Your task to perform on an android device: turn on bluetooth scan Image 0: 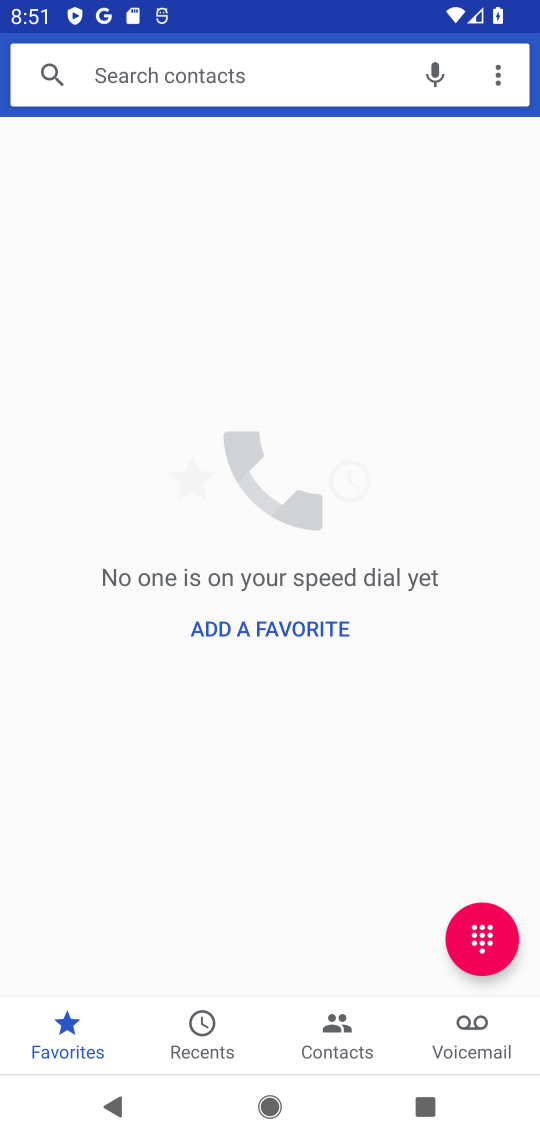
Step 0: press home button
Your task to perform on an android device: turn on bluetooth scan Image 1: 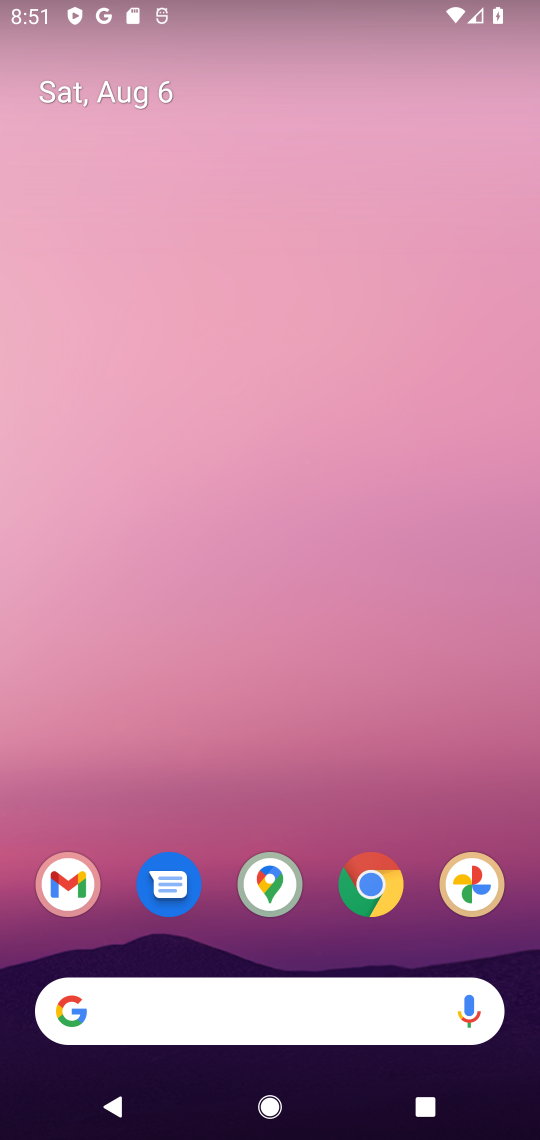
Step 1: drag from (411, 931) to (359, 135)
Your task to perform on an android device: turn on bluetooth scan Image 2: 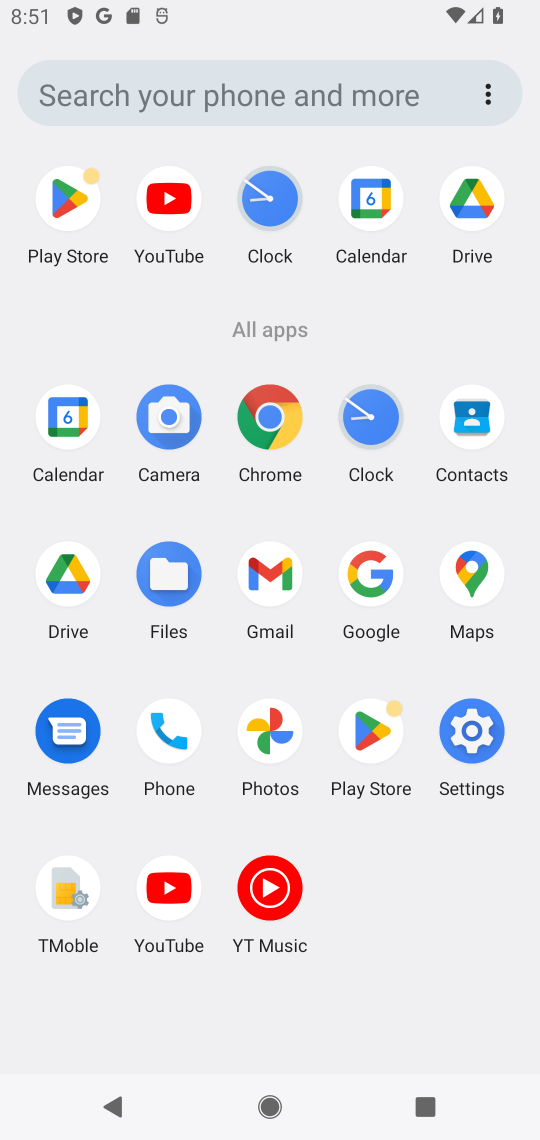
Step 2: click (473, 732)
Your task to perform on an android device: turn on bluetooth scan Image 3: 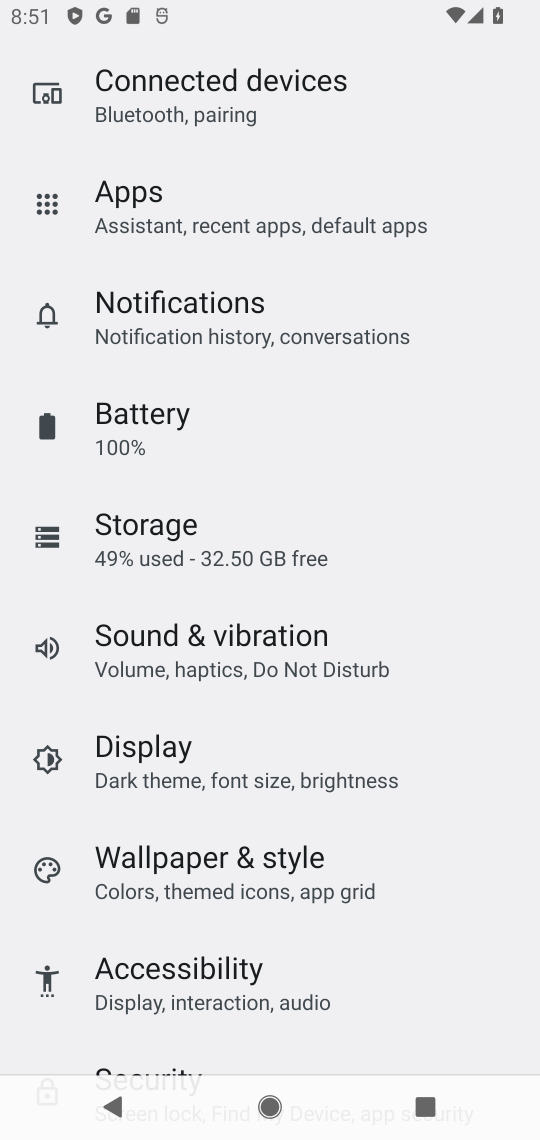
Step 3: drag from (385, 998) to (348, 602)
Your task to perform on an android device: turn on bluetooth scan Image 4: 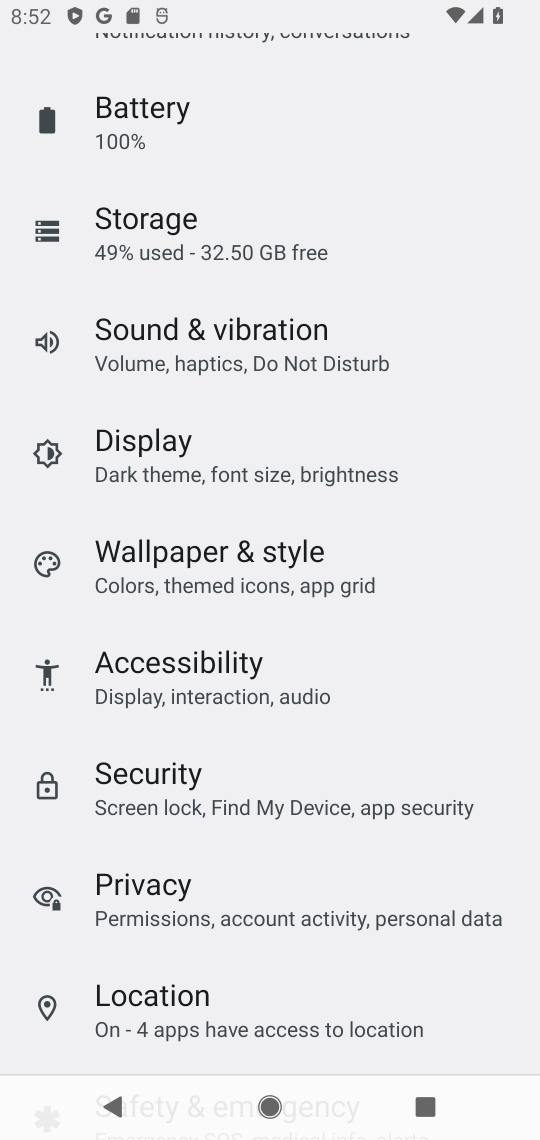
Step 4: click (171, 1001)
Your task to perform on an android device: turn on bluetooth scan Image 5: 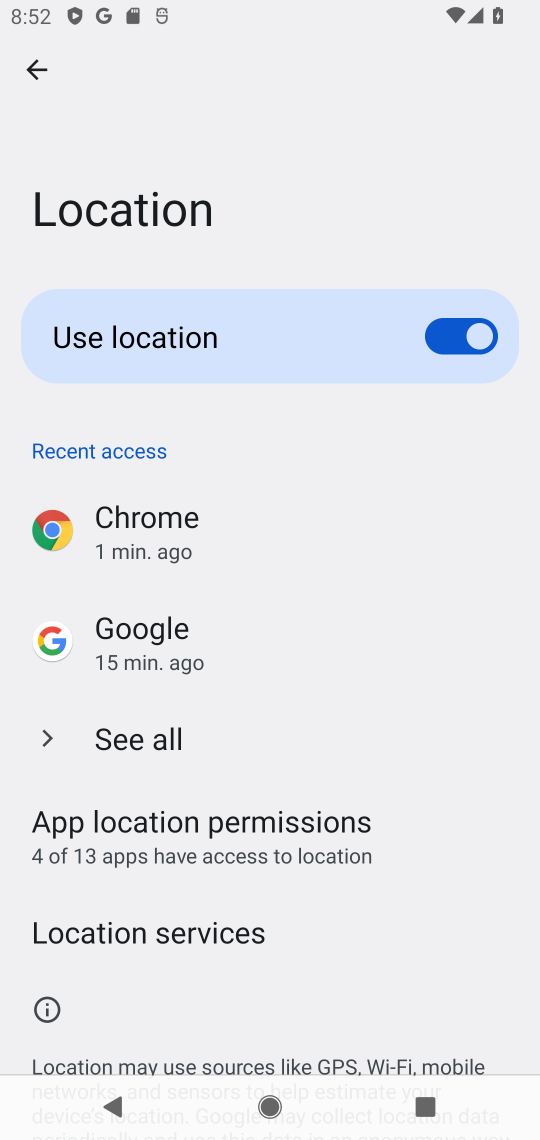
Step 5: drag from (429, 978) to (417, 627)
Your task to perform on an android device: turn on bluetooth scan Image 6: 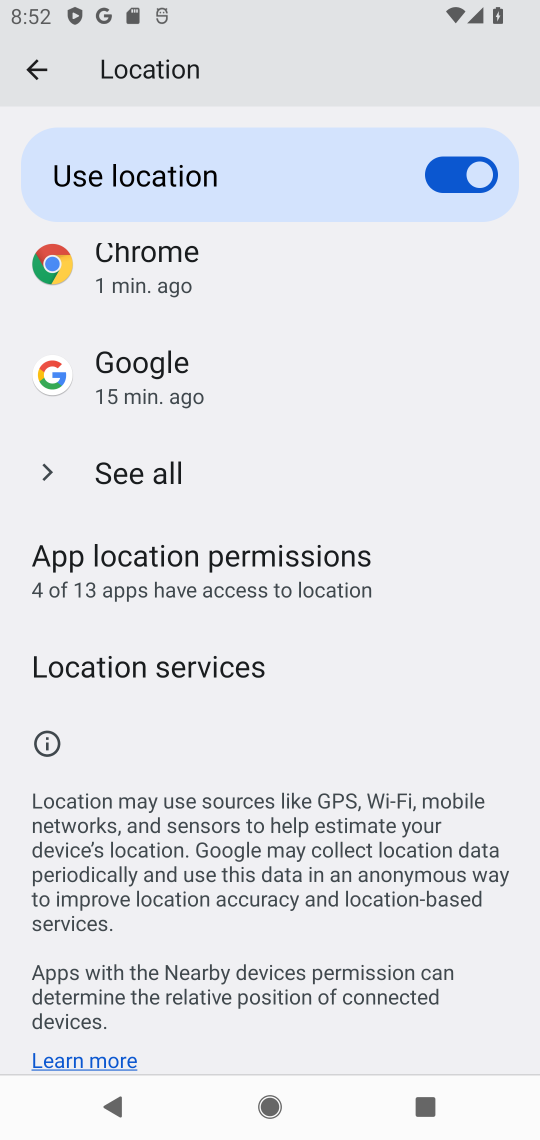
Step 6: click (150, 674)
Your task to perform on an android device: turn on bluetooth scan Image 7: 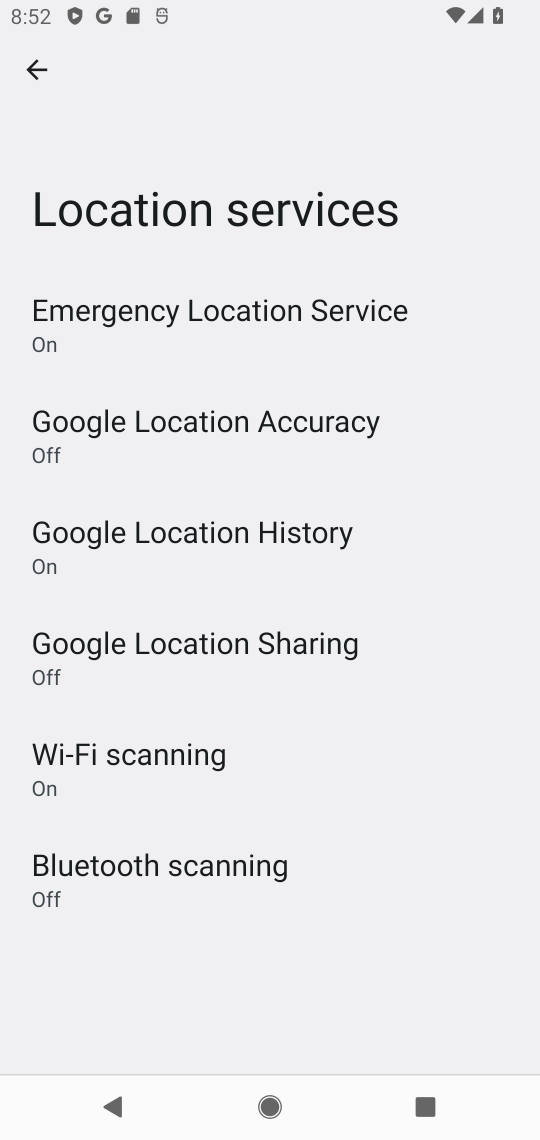
Step 7: click (154, 862)
Your task to perform on an android device: turn on bluetooth scan Image 8: 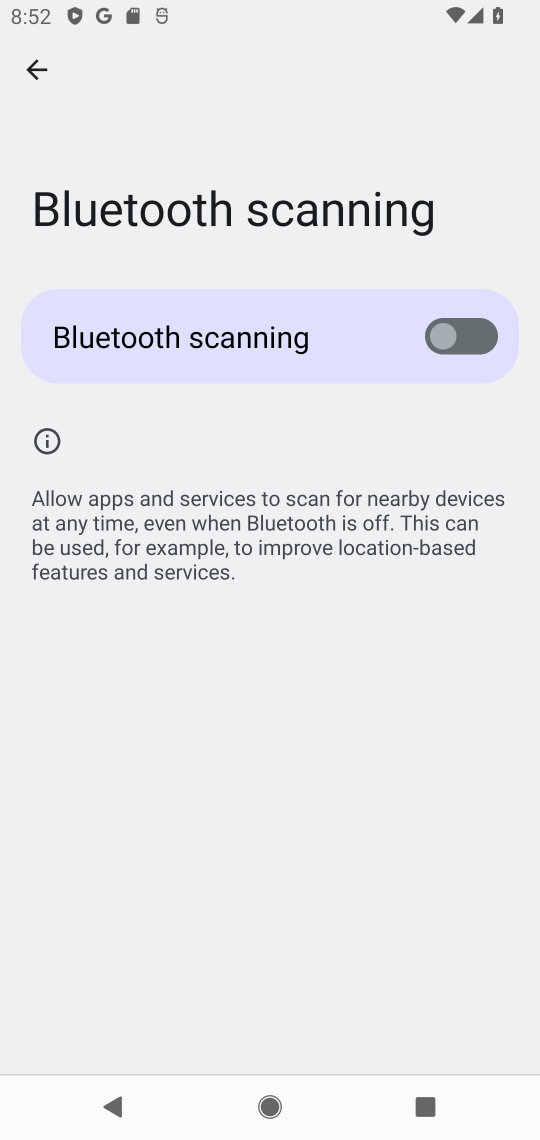
Step 8: click (496, 341)
Your task to perform on an android device: turn on bluetooth scan Image 9: 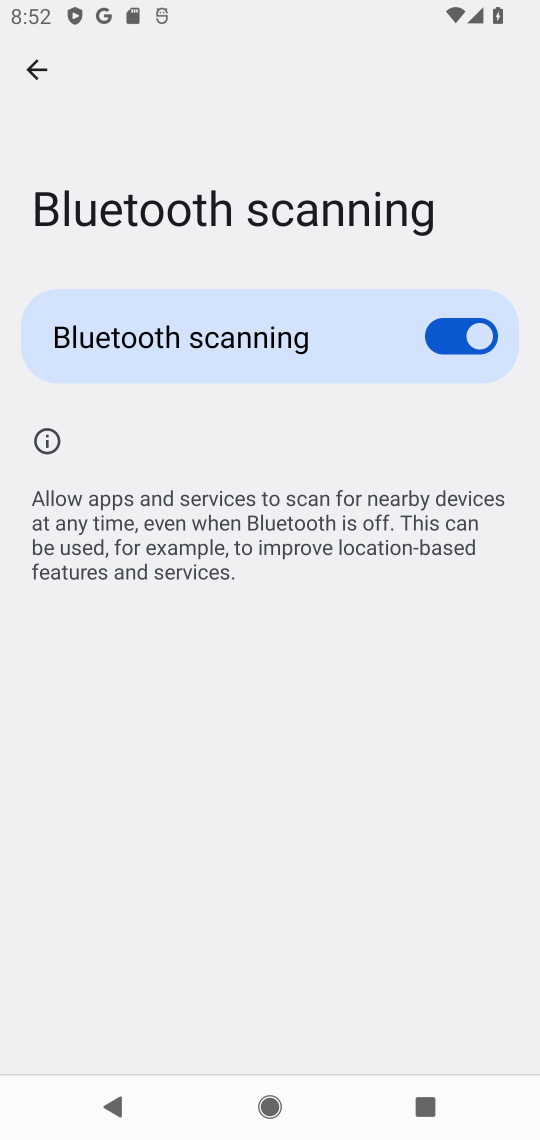
Step 9: task complete